Your task to perform on an android device: turn on improve location accuracy Image 0: 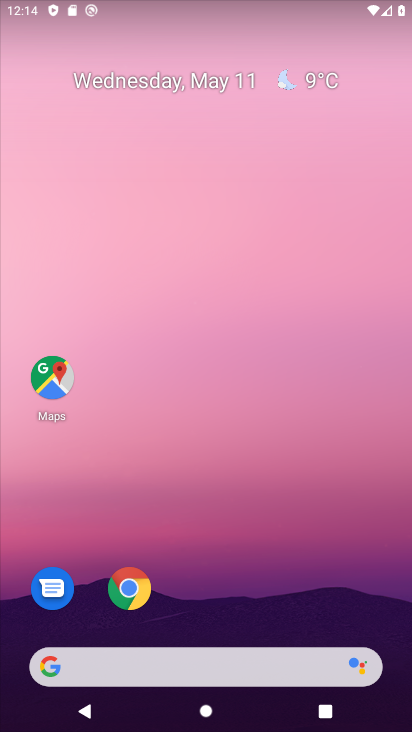
Step 0: drag from (254, 606) to (263, 0)
Your task to perform on an android device: turn on improve location accuracy Image 1: 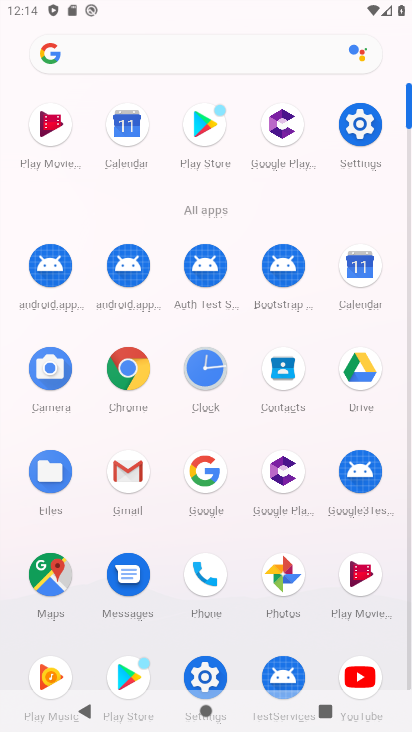
Step 1: click (362, 133)
Your task to perform on an android device: turn on improve location accuracy Image 2: 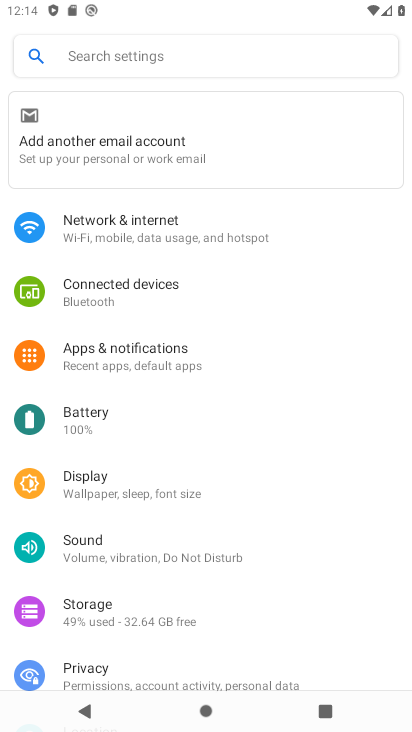
Step 2: drag from (233, 557) to (243, 362)
Your task to perform on an android device: turn on improve location accuracy Image 3: 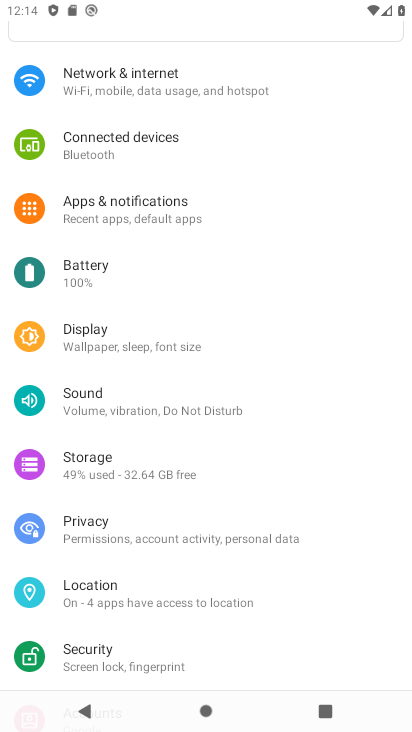
Step 3: click (95, 591)
Your task to perform on an android device: turn on improve location accuracy Image 4: 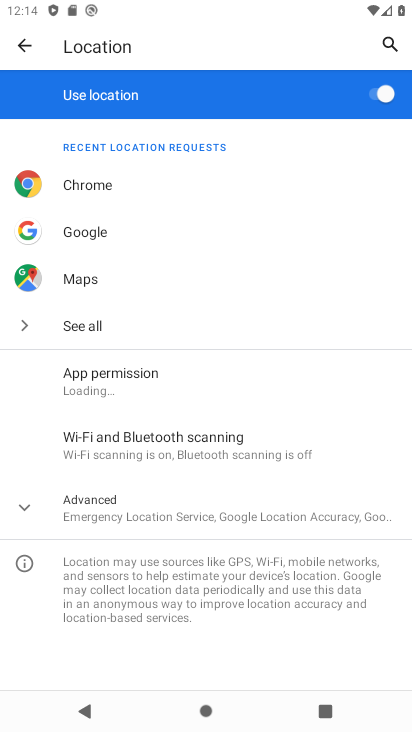
Step 4: click (27, 514)
Your task to perform on an android device: turn on improve location accuracy Image 5: 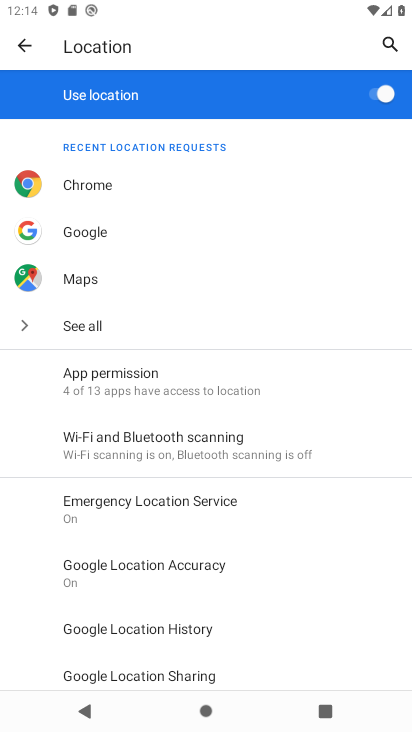
Step 5: click (165, 566)
Your task to perform on an android device: turn on improve location accuracy Image 6: 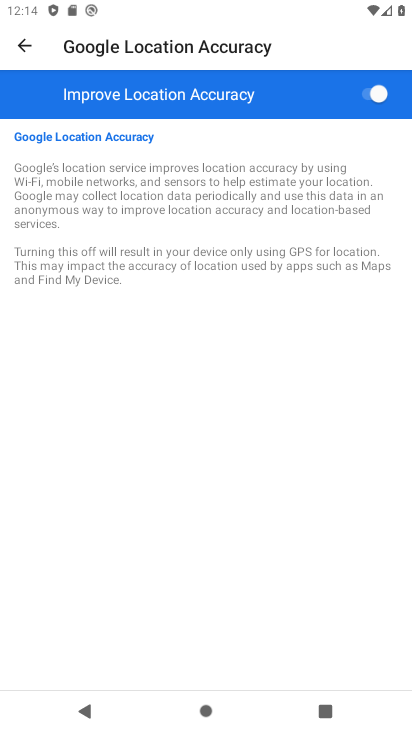
Step 6: task complete